Your task to perform on an android device: delete location history Image 0: 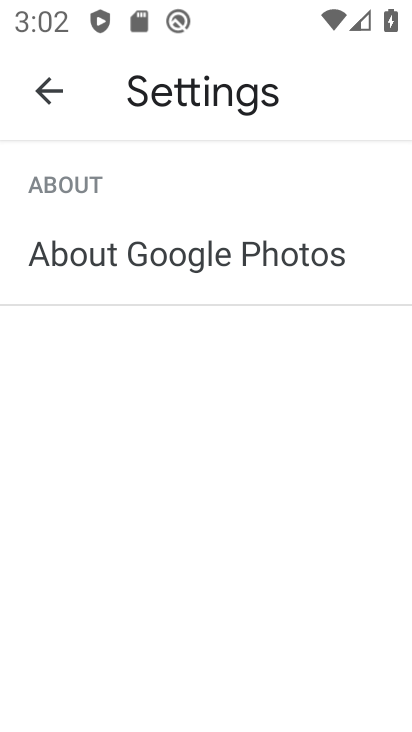
Step 0: press home button
Your task to perform on an android device: delete location history Image 1: 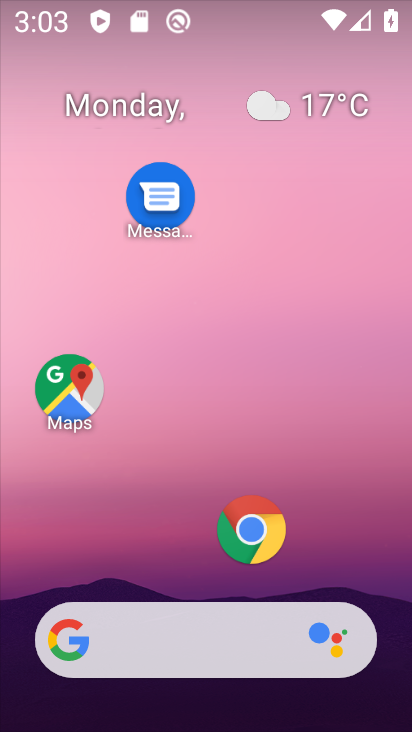
Step 1: click (66, 378)
Your task to perform on an android device: delete location history Image 2: 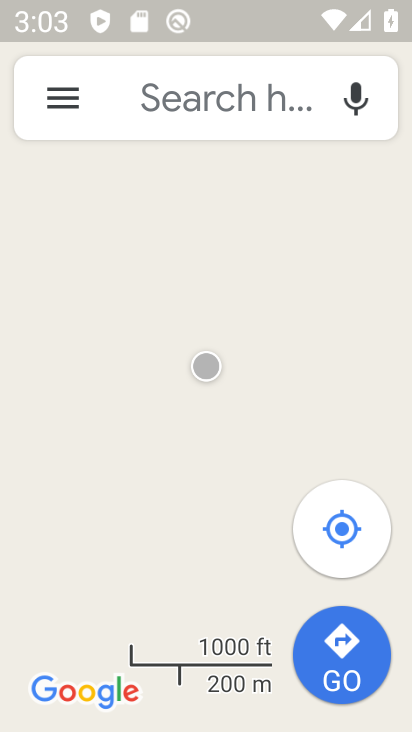
Step 2: click (58, 92)
Your task to perform on an android device: delete location history Image 3: 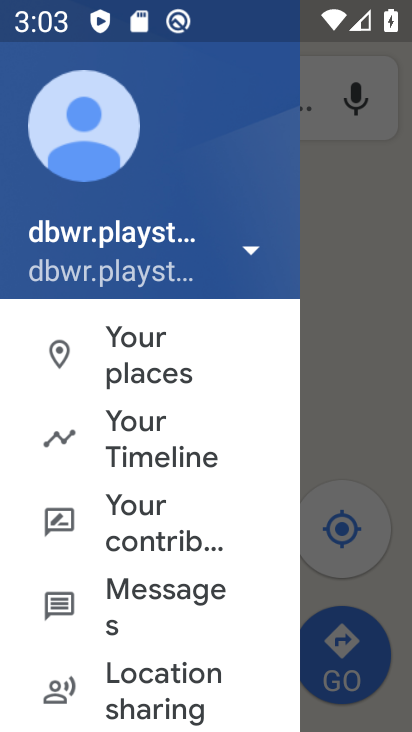
Step 3: click (85, 429)
Your task to perform on an android device: delete location history Image 4: 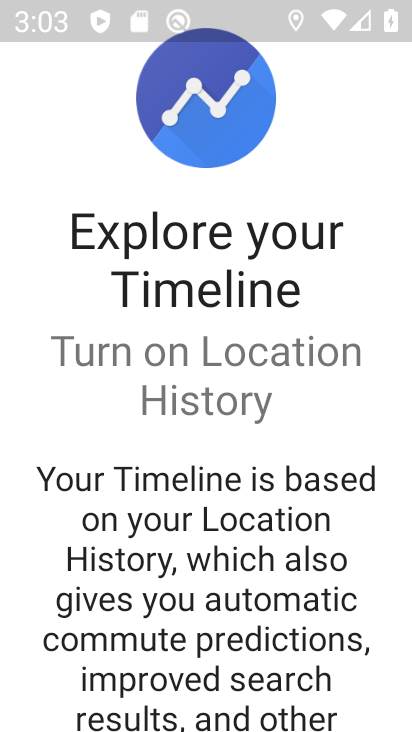
Step 4: drag from (240, 642) to (260, 198)
Your task to perform on an android device: delete location history Image 5: 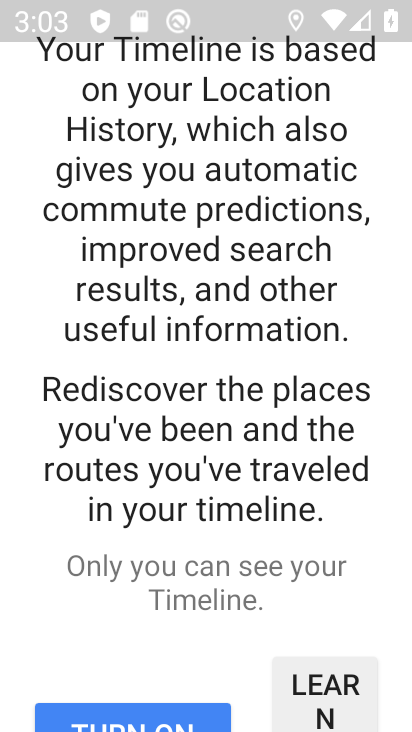
Step 5: click (139, 714)
Your task to perform on an android device: delete location history Image 6: 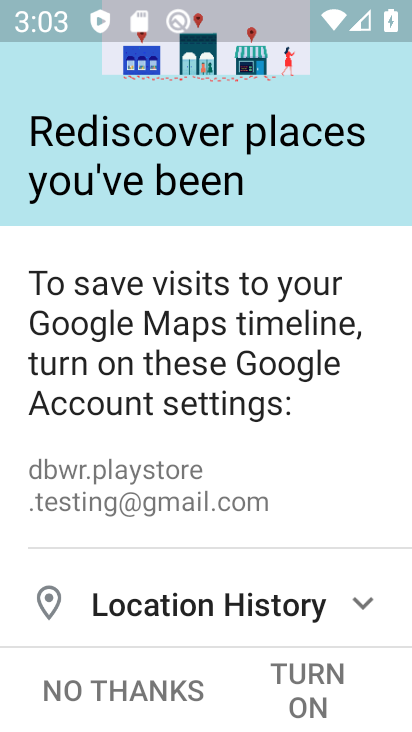
Step 6: drag from (243, 553) to (241, 69)
Your task to perform on an android device: delete location history Image 7: 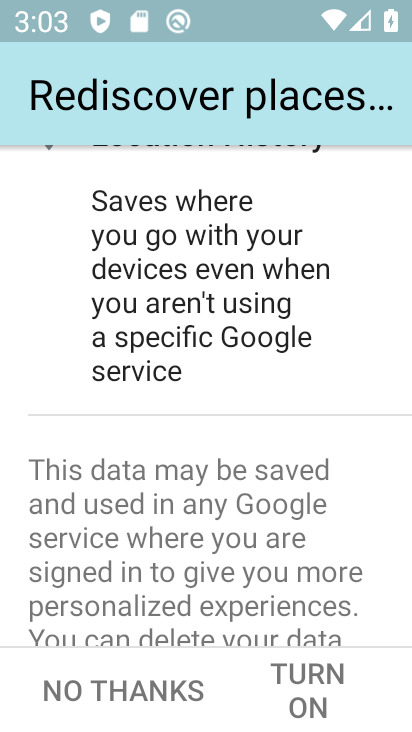
Step 7: drag from (211, 571) to (224, 132)
Your task to perform on an android device: delete location history Image 8: 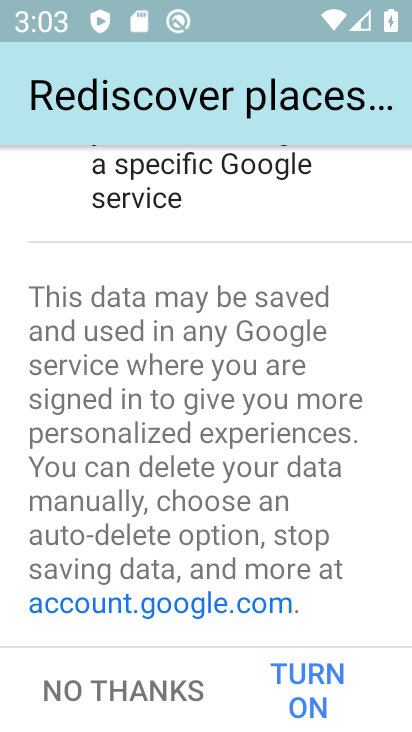
Step 8: click (294, 677)
Your task to perform on an android device: delete location history Image 9: 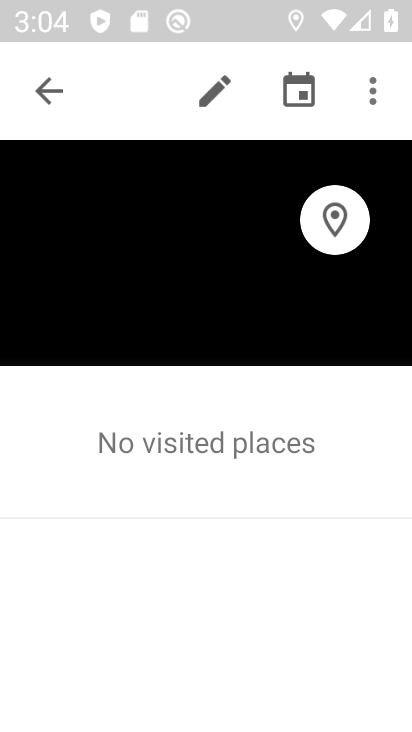
Step 9: click (369, 82)
Your task to perform on an android device: delete location history Image 10: 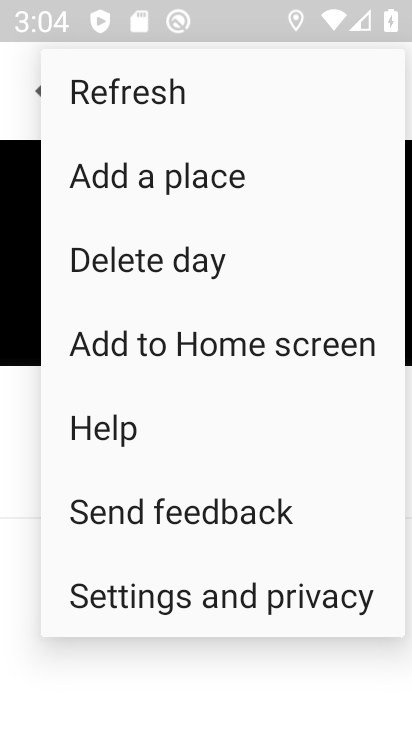
Step 10: click (187, 611)
Your task to perform on an android device: delete location history Image 11: 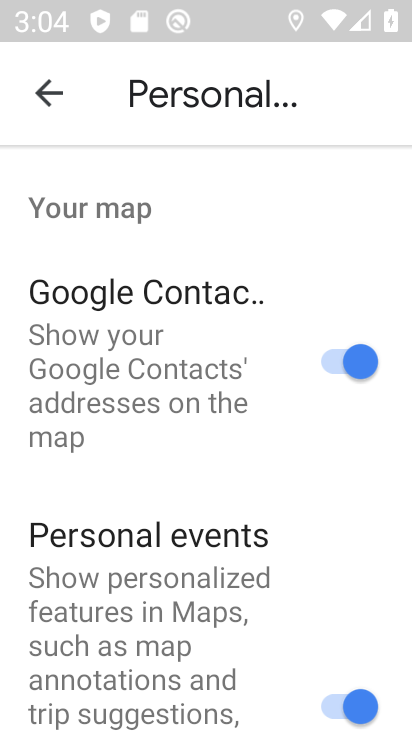
Step 11: drag from (201, 680) to (245, 286)
Your task to perform on an android device: delete location history Image 12: 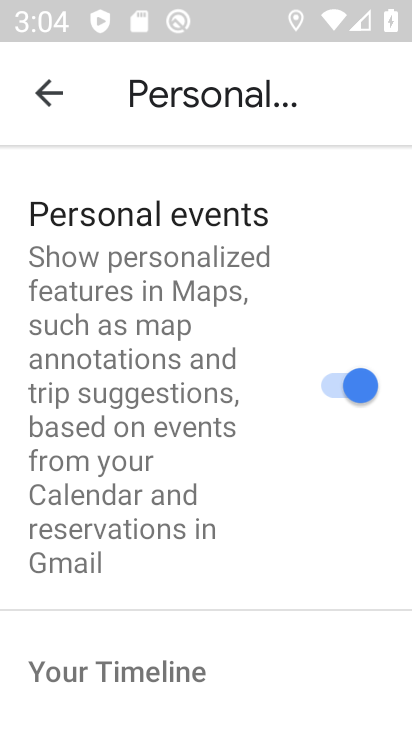
Step 12: drag from (136, 615) to (193, 137)
Your task to perform on an android device: delete location history Image 13: 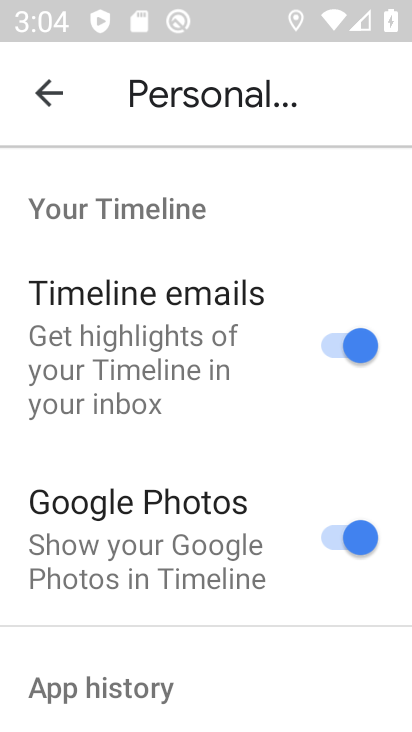
Step 13: drag from (183, 606) to (227, 179)
Your task to perform on an android device: delete location history Image 14: 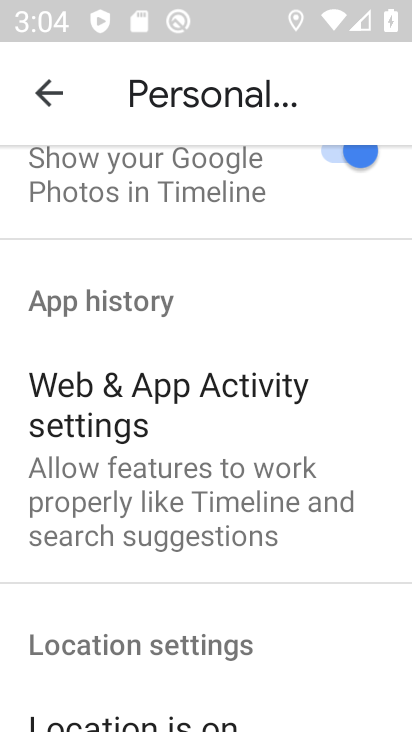
Step 14: drag from (221, 672) to (227, 157)
Your task to perform on an android device: delete location history Image 15: 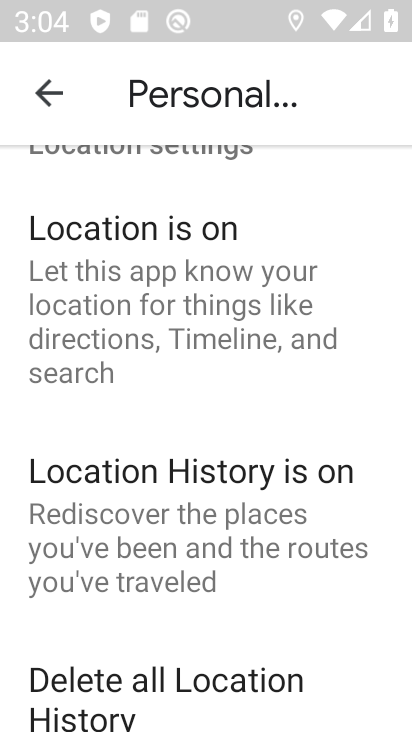
Step 15: click (211, 688)
Your task to perform on an android device: delete location history Image 16: 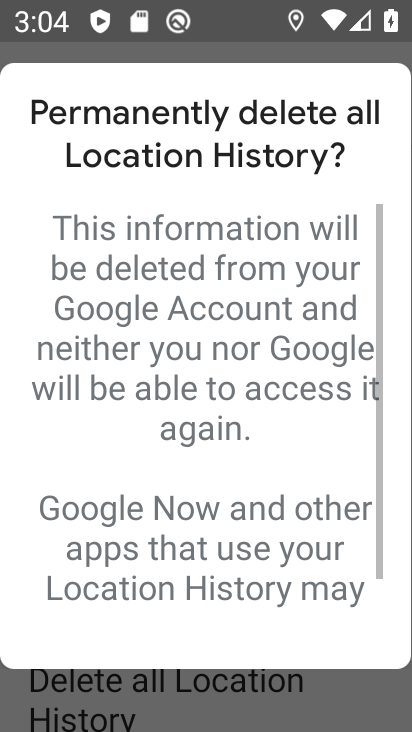
Step 16: task complete